Your task to perform on an android device: Open sound settings Image 0: 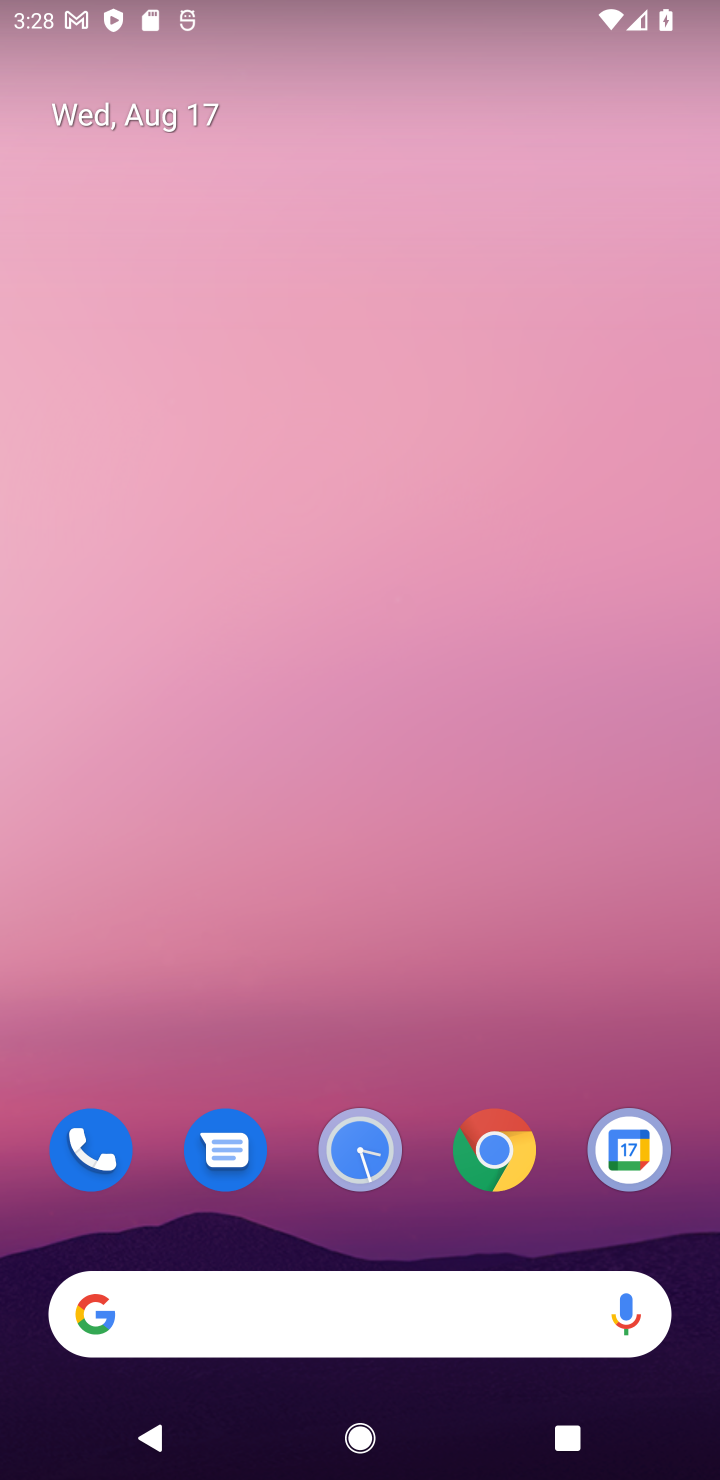
Step 0: drag from (591, 1187) to (226, 9)
Your task to perform on an android device: Open sound settings Image 1: 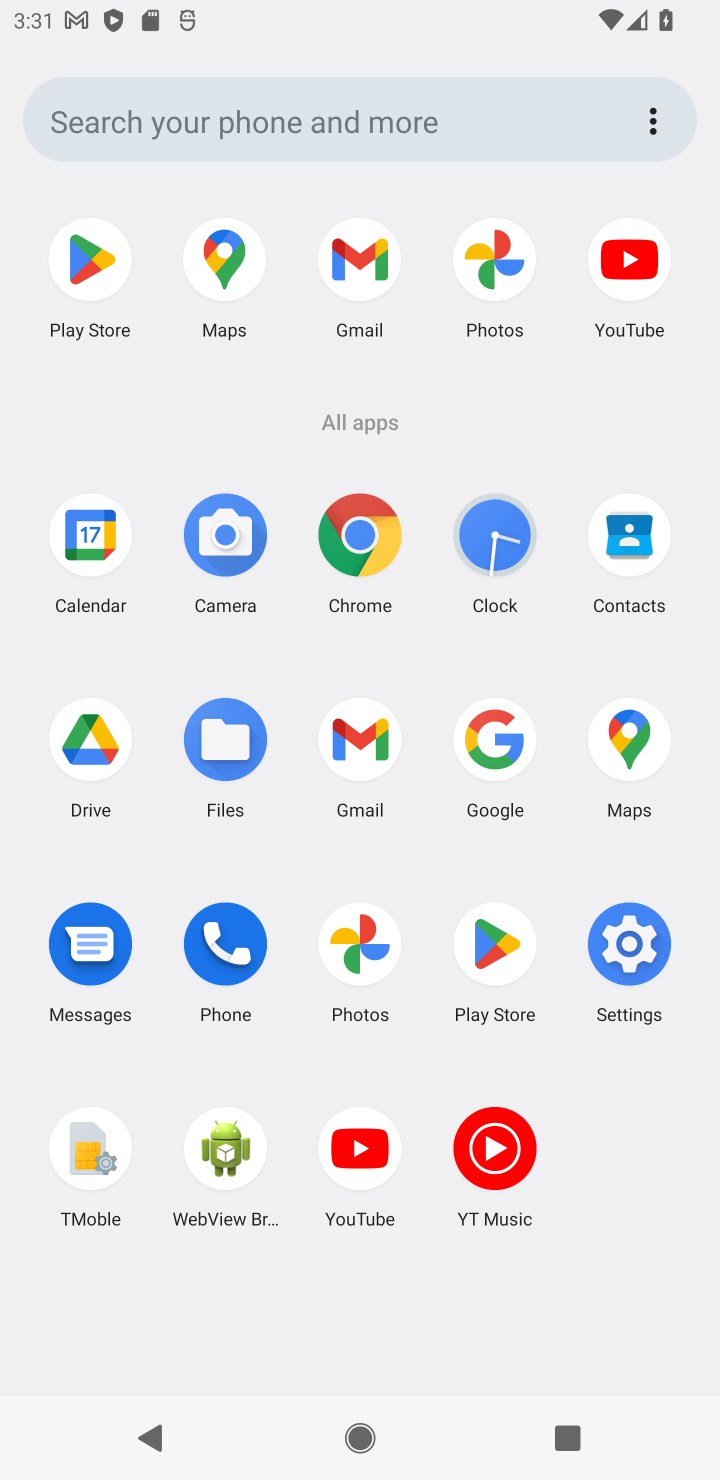
Step 1: click (629, 958)
Your task to perform on an android device: Open sound settings Image 2: 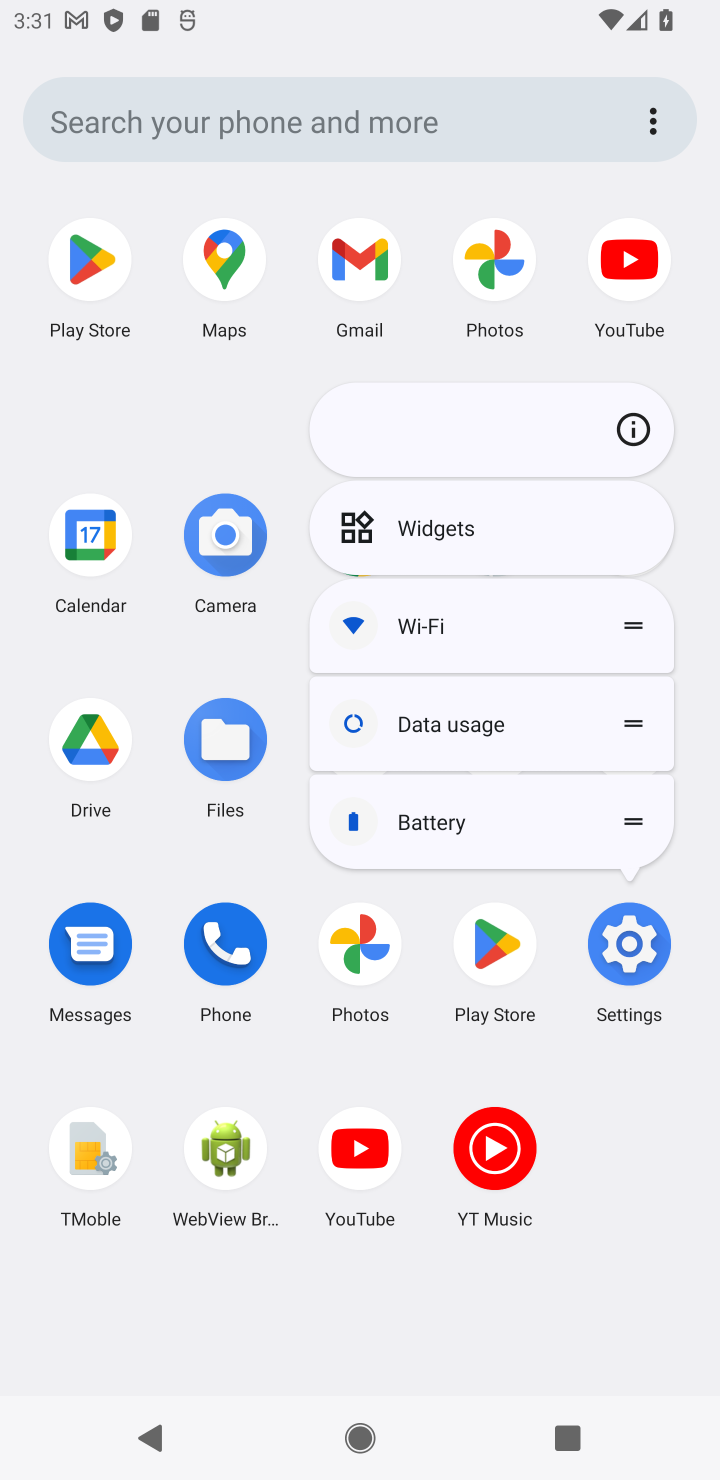
Step 2: click (629, 958)
Your task to perform on an android device: Open sound settings Image 3: 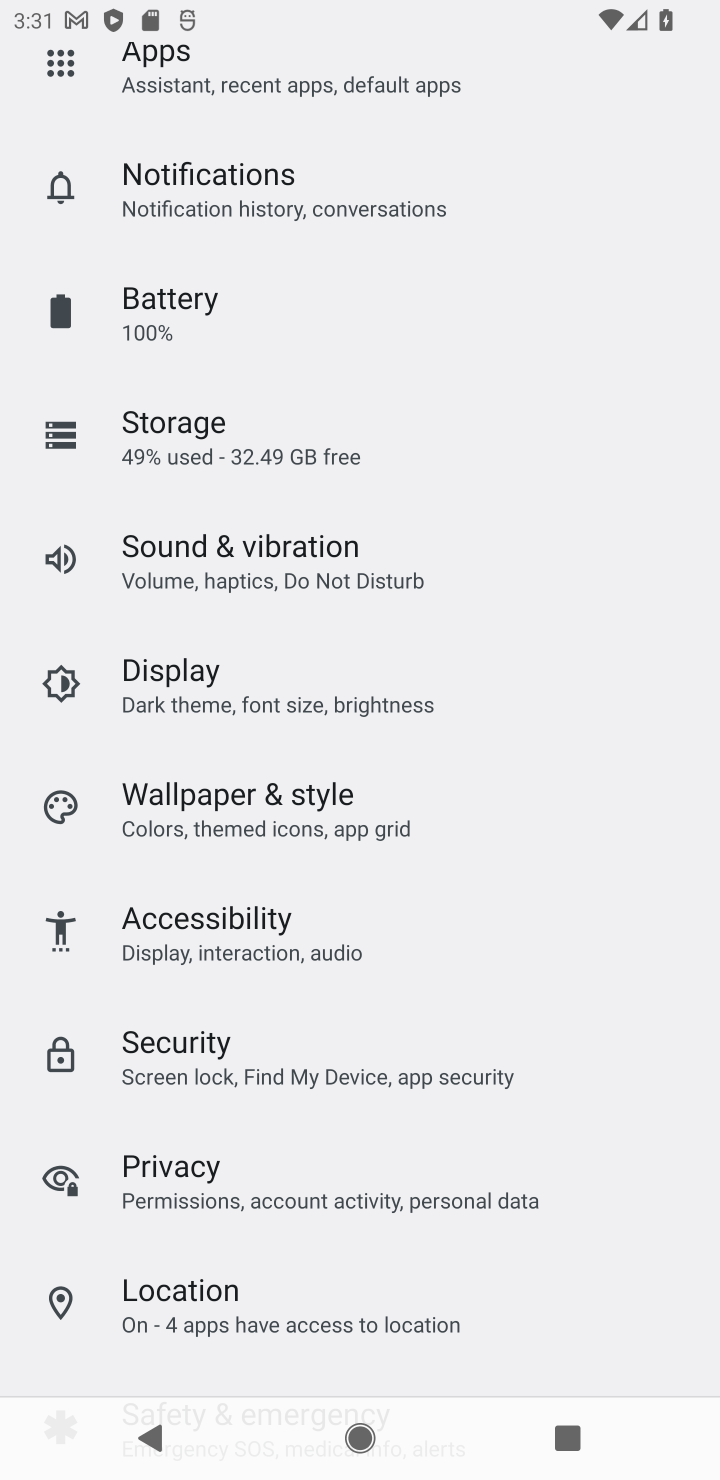
Step 3: drag from (258, 1146) to (272, 234)
Your task to perform on an android device: Open sound settings Image 4: 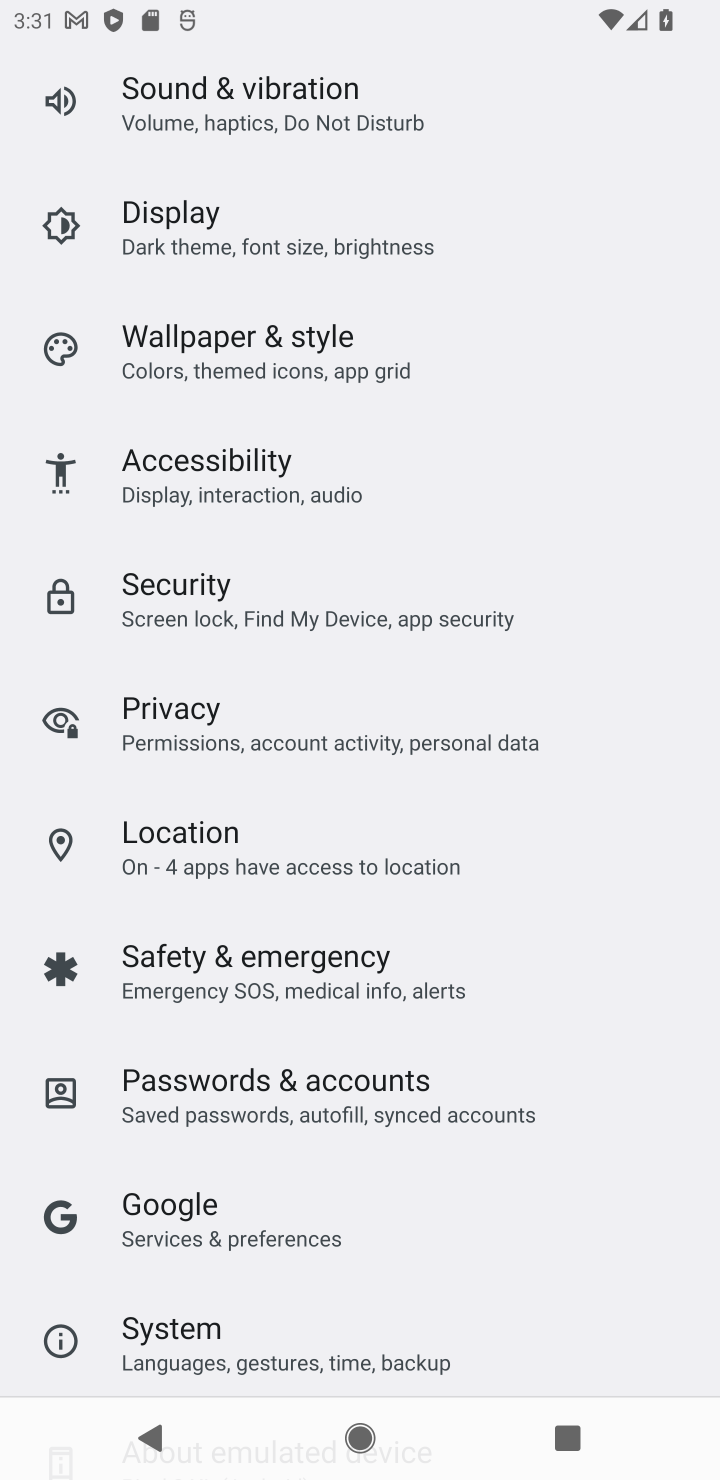
Step 4: drag from (285, 436) to (288, 1308)
Your task to perform on an android device: Open sound settings Image 5: 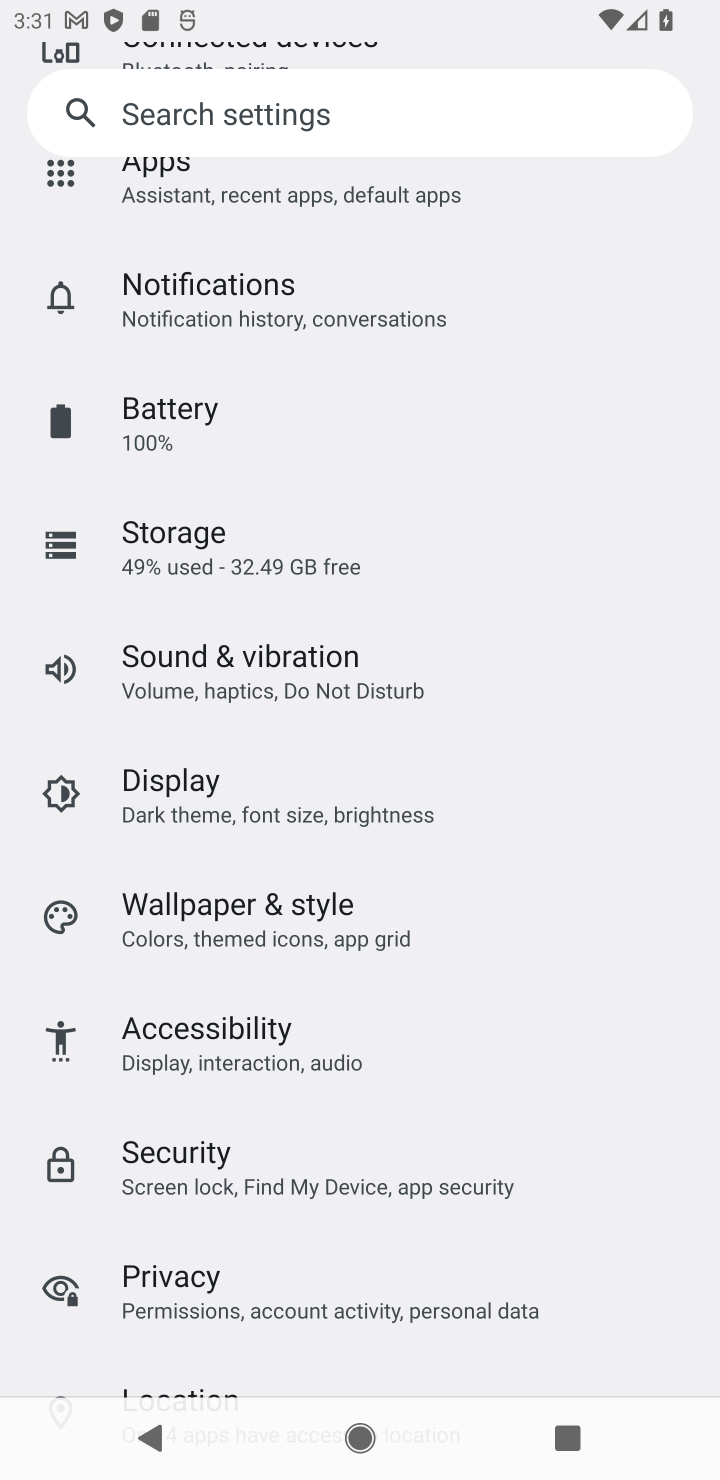
Step 5: click (356, 674)
Your task to perform on an android device: Open sound settings Image 6: 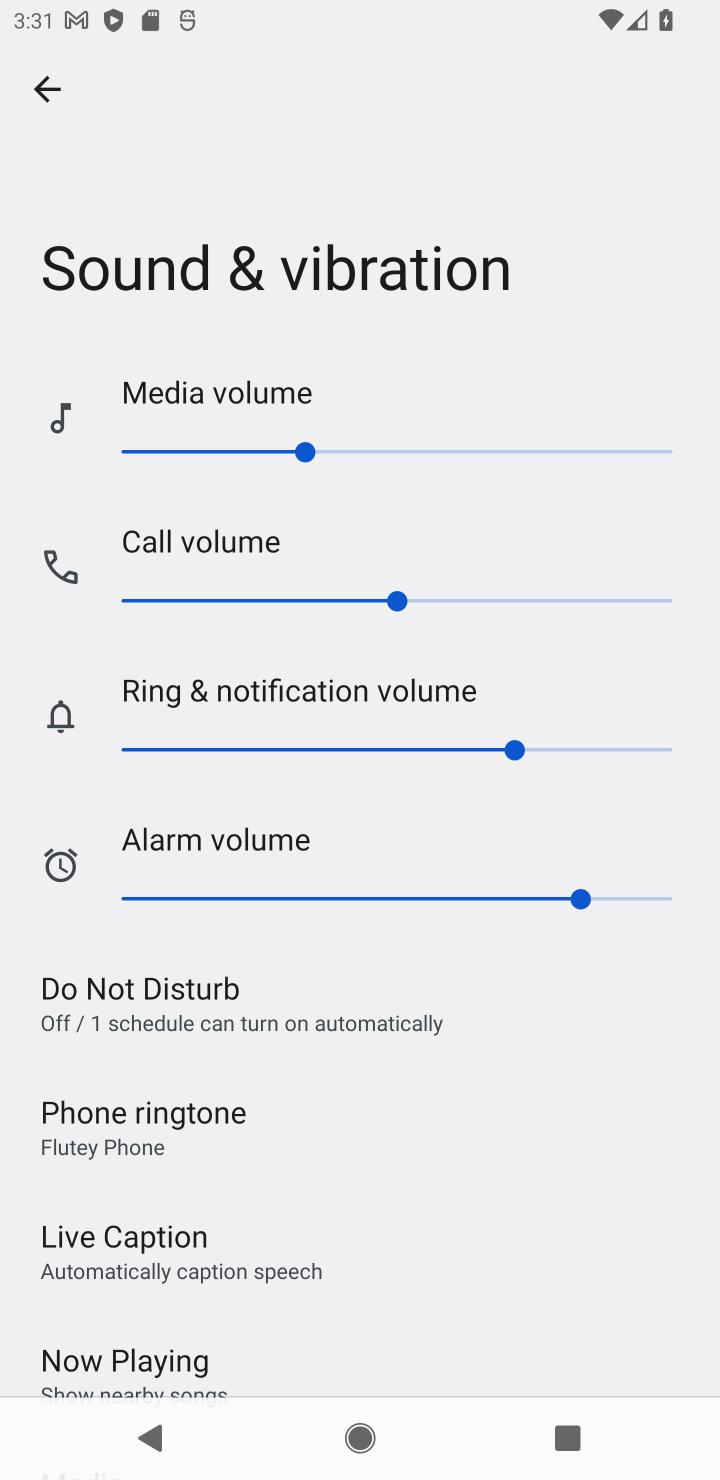
Step 6: task complete